Your task to perform on an android device: delete browsing data in the chrome app Image 0: 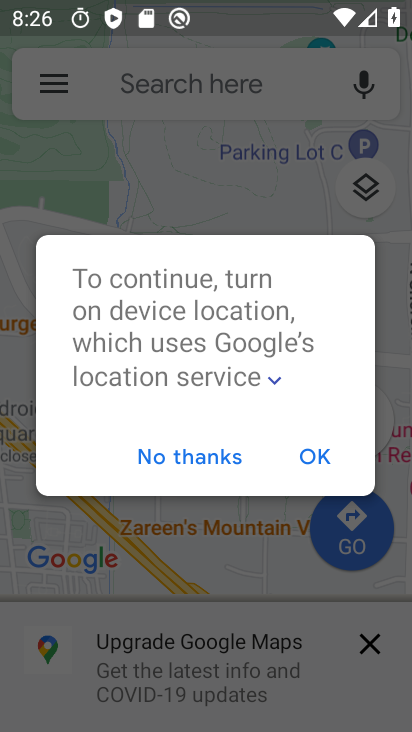
Step 0: press home button
Your task to perform on an android device: delete browsing data in the chrome app Image 1: 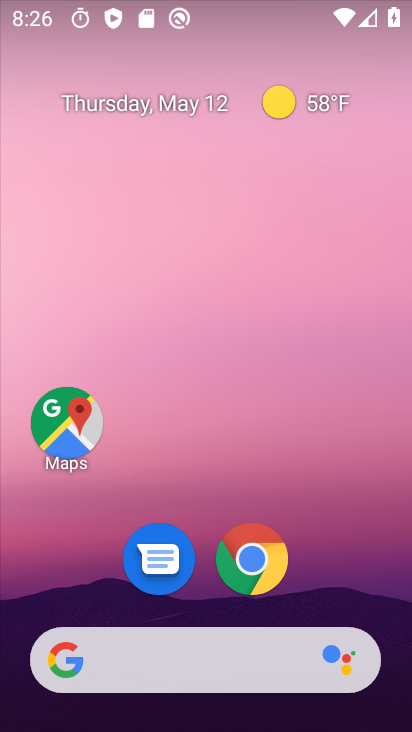
Step 1: click (253, 559)
Your task to perform on an android device: delete browsing data in the chrome app Image 2: 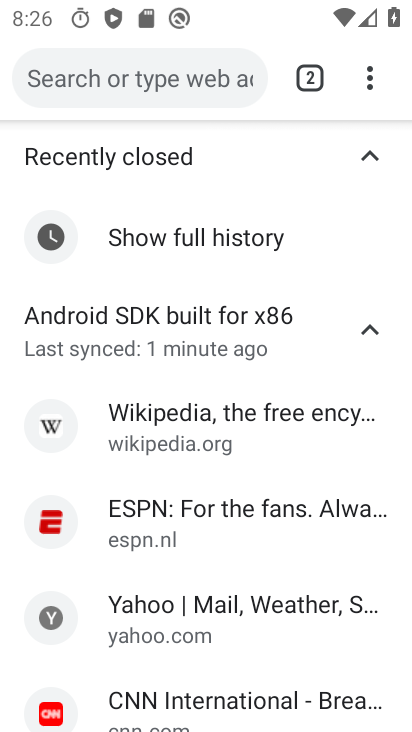
Step 2: click (367, 81)
Your task to perform on an android device: delete browsing data in the chrome app Image 3: 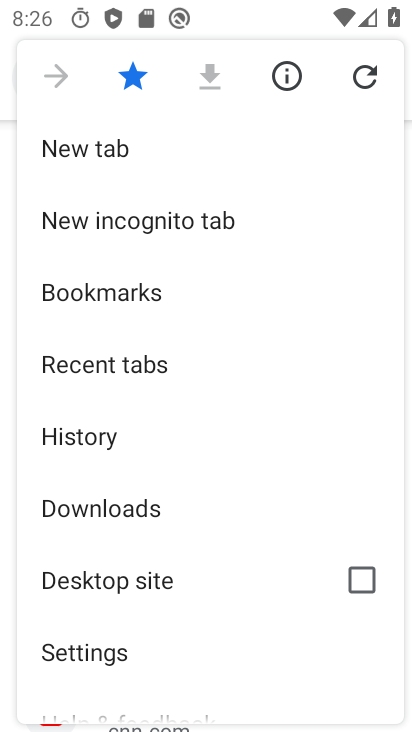
Step 3: click (71, 653)
Your task to perform on an android device: delete browsing data in the chrome app Image 4: 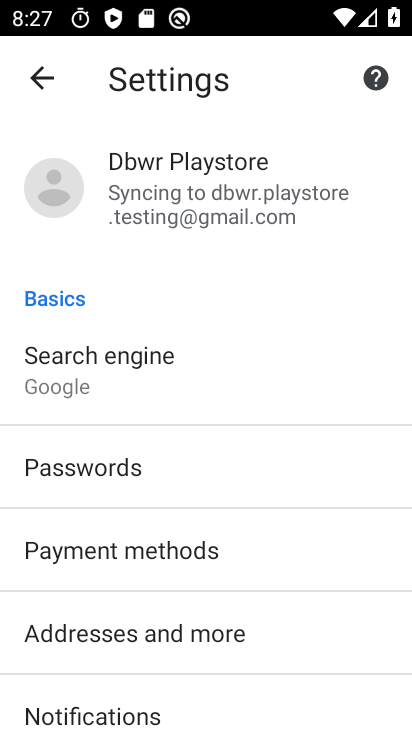
Step 4: drag from (166, 580) to (196, 468)
Your task to perform on an android device: delete browsing data in the chrome app Image 5: 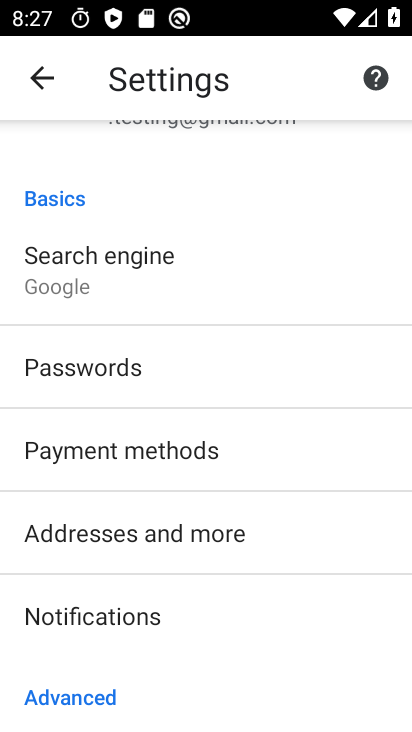
Step 5: drag from (151, 637) to (241, 447)
Your task to perform on an android device: delete browsing data in the chrome app Image 6: 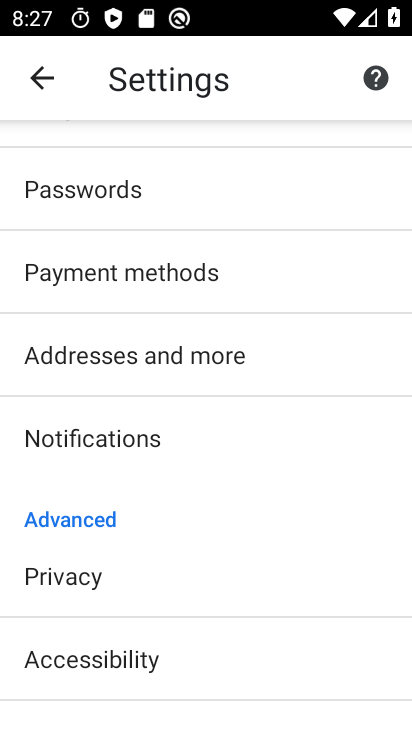
Step 6: click (64, 580)
Your task to perform on an android device: delete browsing data in the chrome app Image 7: 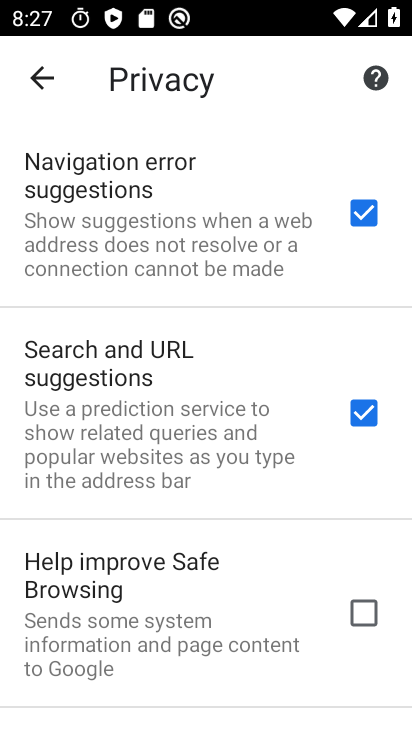
Step 7: drag from (138, 667) to (271, 345)
Your task to perform on an android device: delete browsing data in the chrome app Image 8: 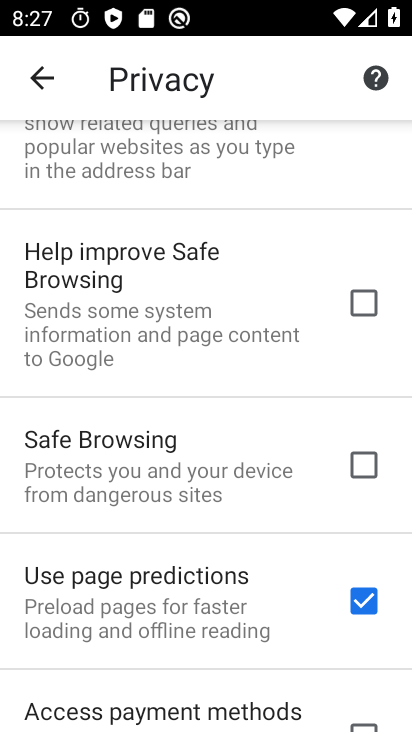
Step 8: drag from (180, 675) to (292, 362)
Your task to perform on an android device: delete browsing data in the chrome app Image 9: 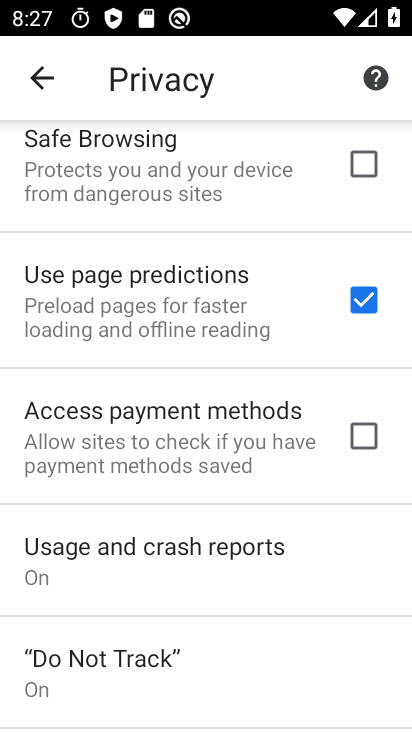
Step 9: drag from (156, 597) to (244, 343)
Your task to perform on an android device: delete browsing data in the chrome app Image 10: 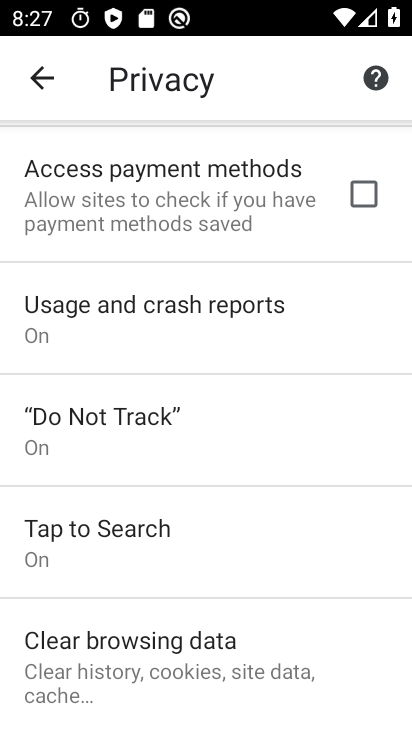
Step 10: click (155, 638)
Your task to perform on an android device: delete browsing data in the chrome app Image 11: 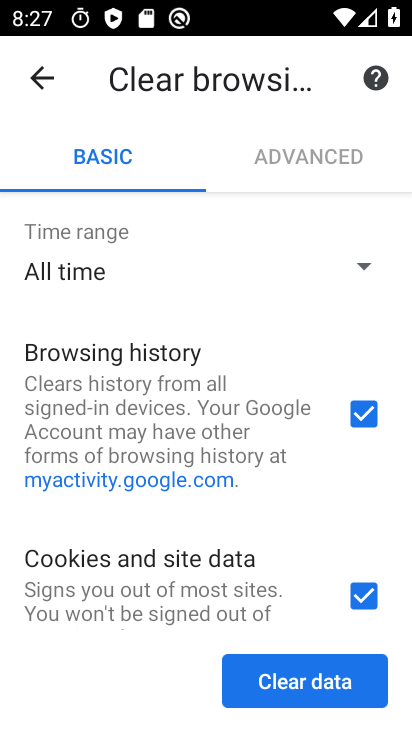
Step 11: click (290, 675)
Your task to perform on an android device: delete browsing data in the chrome app Image 12: 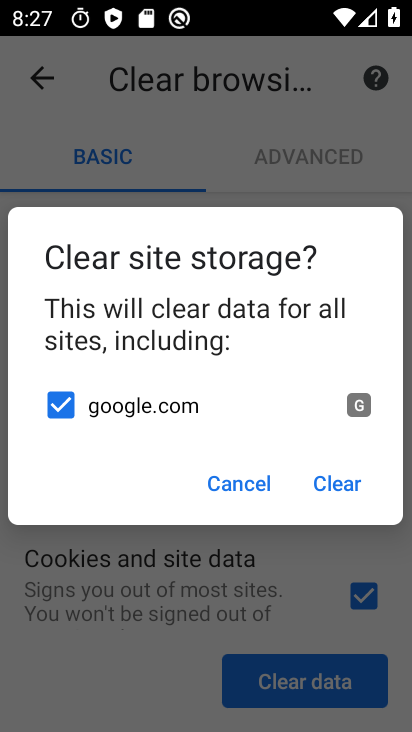
Step 12: click (326, 483)
Your task to perform on an android device: delete browsing data in the chrome app Image 13: 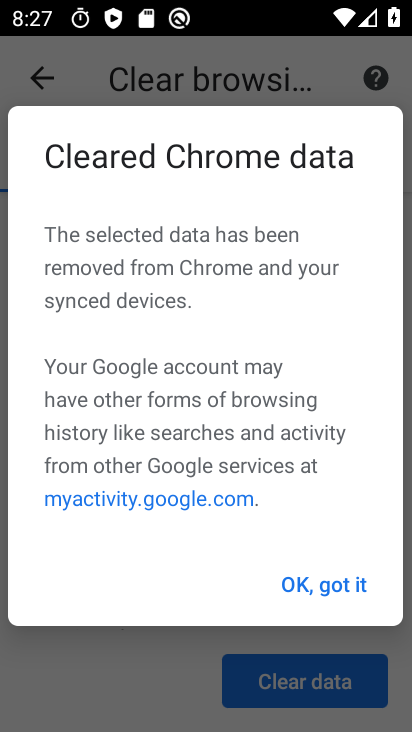
Step 13: click (351, 586)
Your task to perform on an android device: delete browsing data in the chrome app Image 14: 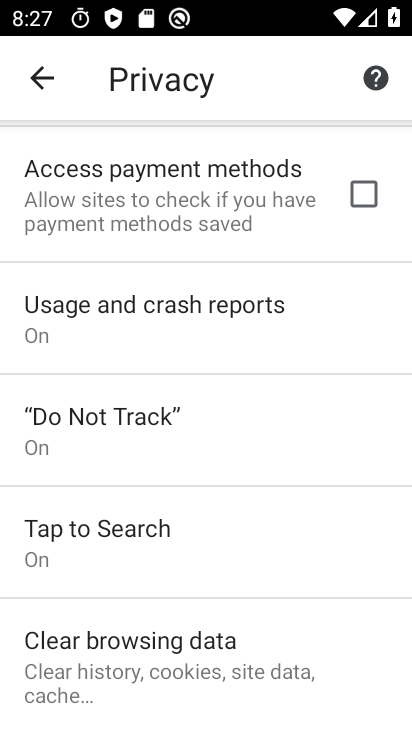
Step 14: task complete